Your task to perform on an android device: Open Chrome and go to settings Image 0: 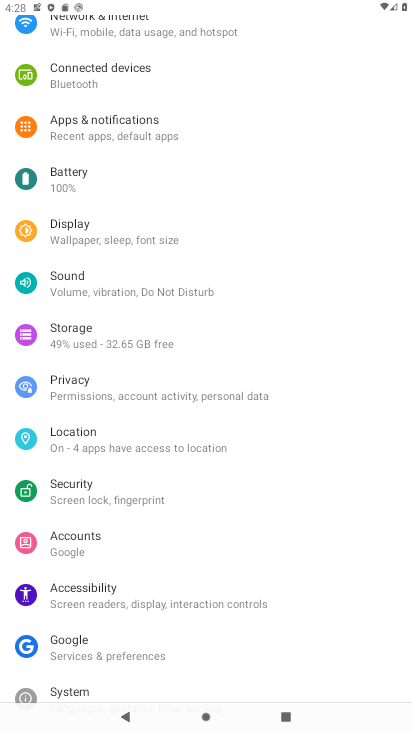
Step 0: press home button
Your task to perform on an android device: Open Chrome and go to settings Image 1: 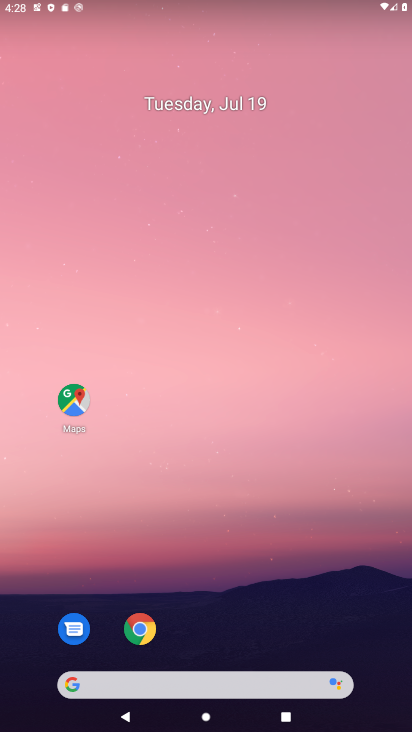
Step 1: drag from (167, 661) to (167, 343)
Your task to perform on an android device: Open Chrome and go to settings Image 2: 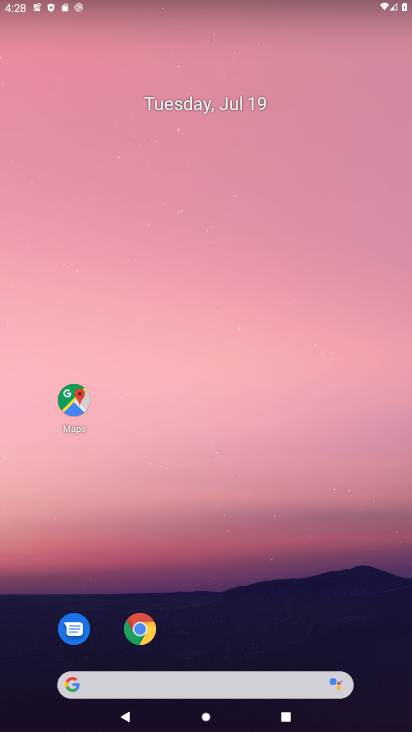
Step 2: drag from (268, 674) to (259, 270)
Your task to perform on an android device: Open Chrome and go to settings Image 3: 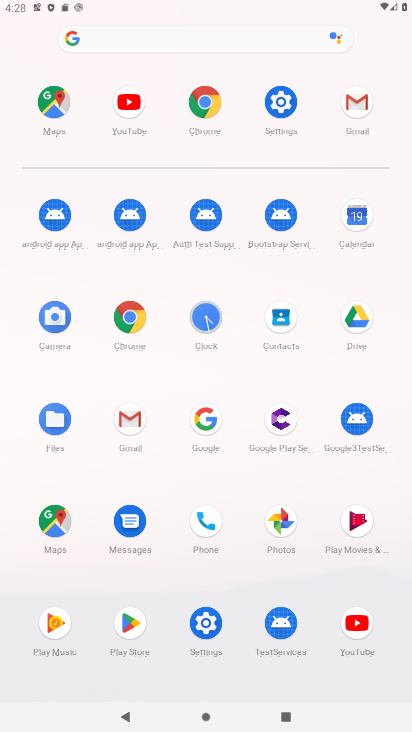
Step 3: click (126, 319)
Your task to perform on an android device: Open Chrome and go to settings Image 4: 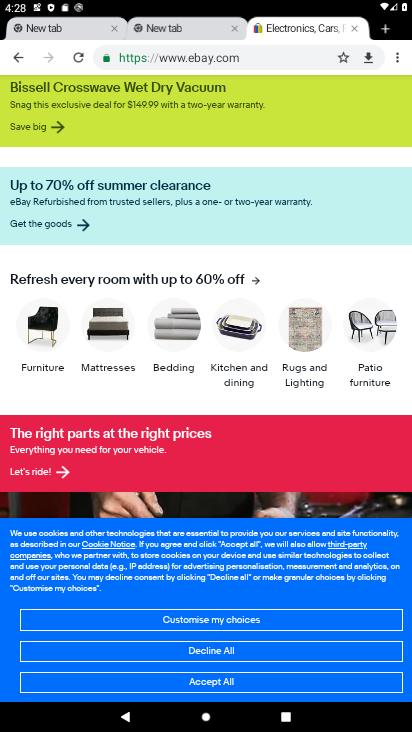
Step 4: click (393, 60)
Your task to perform on an android device: Open Chrome and go to settings Image 5: 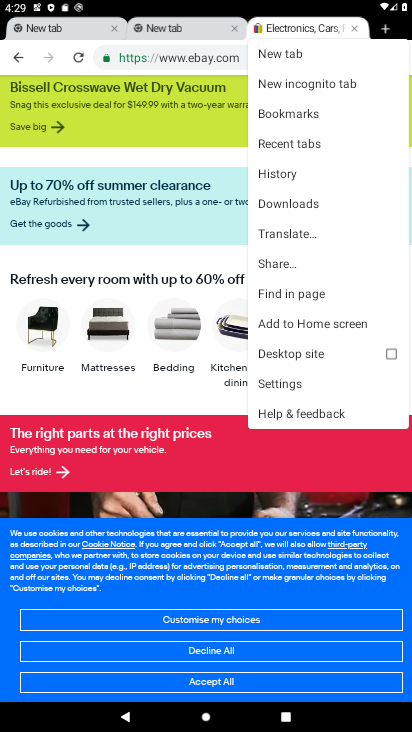
Step 5: click (271, 382)
Your task to perform on an android device: Open Chrome and go to settings Image 6: 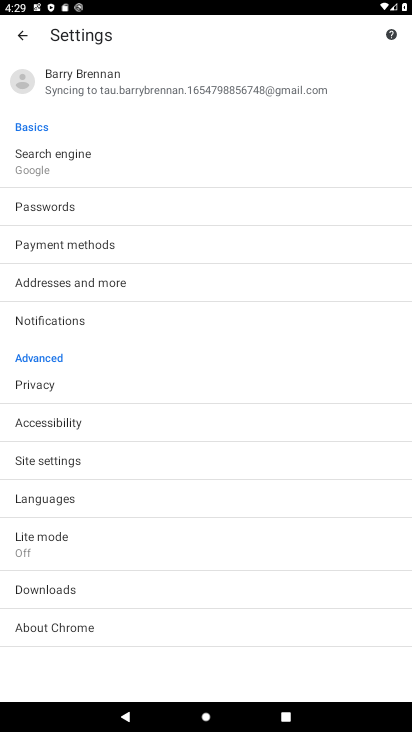
Step 6: task complete